Your task to perform on an android device: Go to settings Image 0: 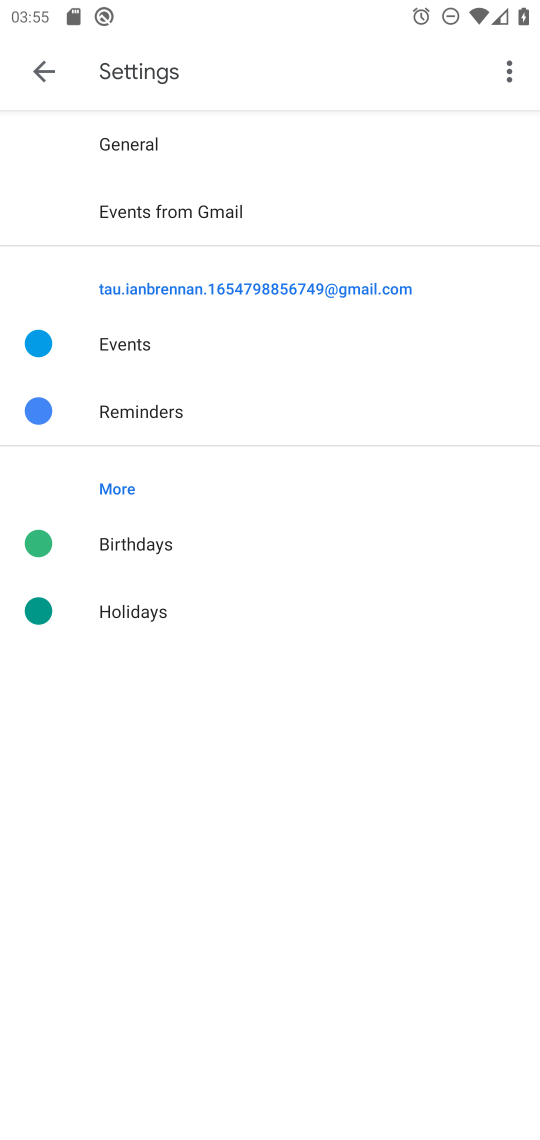
Step 0: press home button
Your task to perform on an android device: Go to settings Image 1: 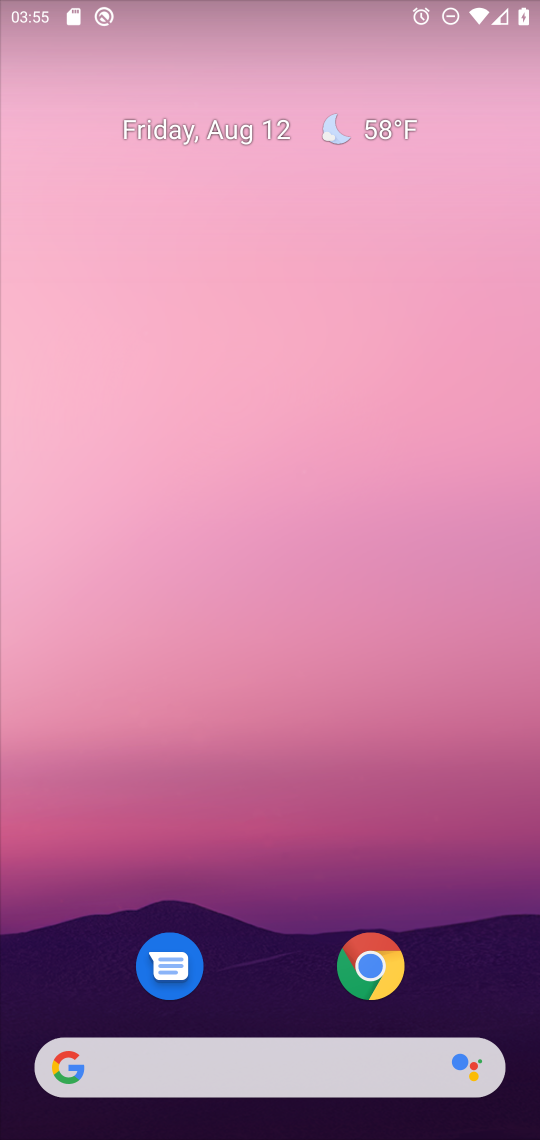
Step 1: drag from (250, 833) to (292, 95)
Your task to perform on an android device: Go to settings Image 2: 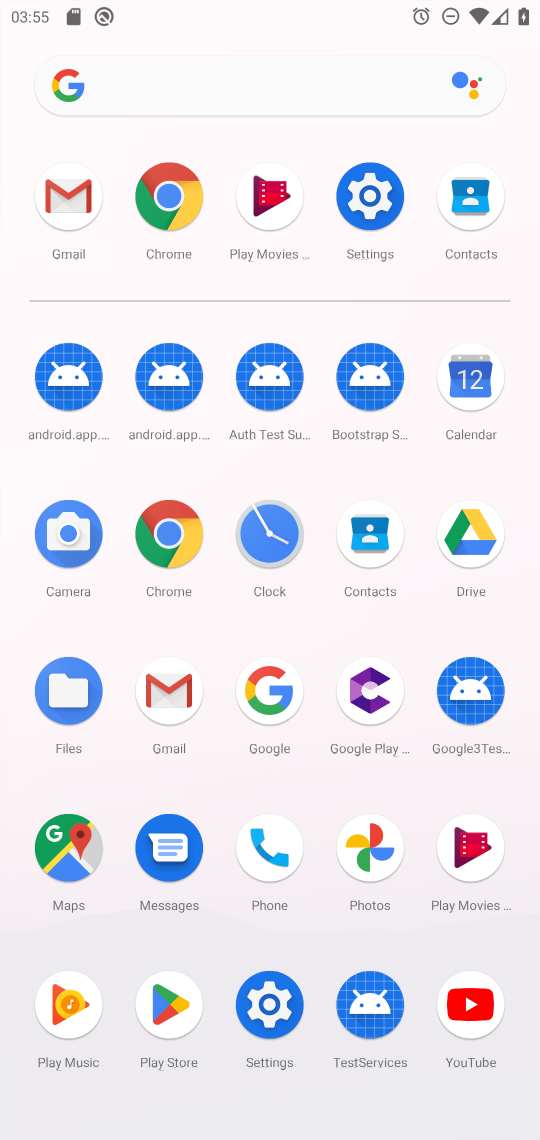
Step 2: click (262, 988)
Your task to perform on an android device: Go to settings Image 3: 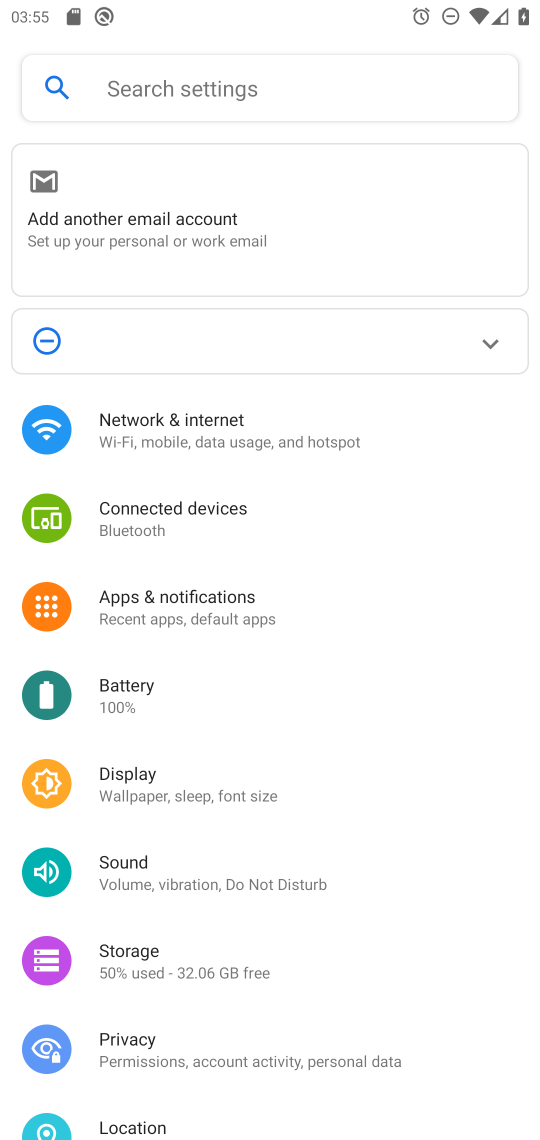
Step 3: task complete